Your task to perform on an android device: toggle improve location accuracy Image 0: 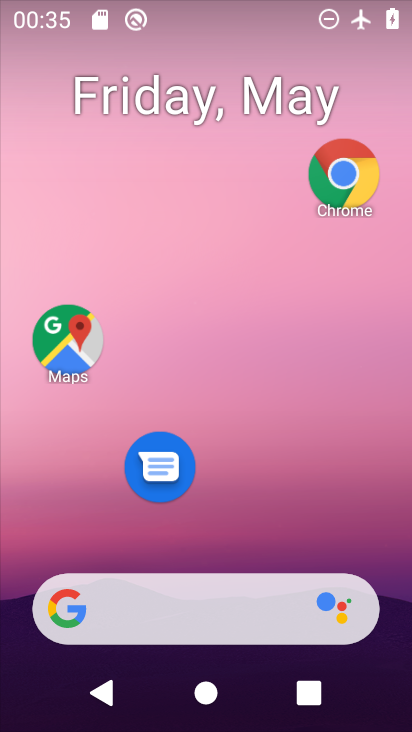
Step 0: drag from (285, 545) to (280, 223)
Your task to perform on an android device: toggle improve location accuracy Image 1: 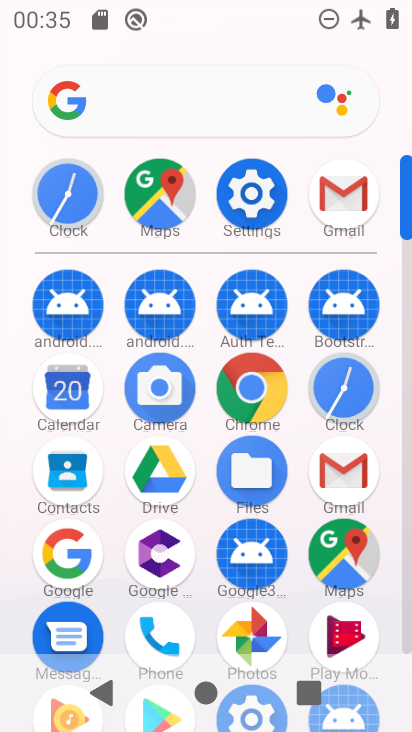
Step 1: click (245, 168)
Your task to perform on an android device: toggle improve location accuracy Image 2: 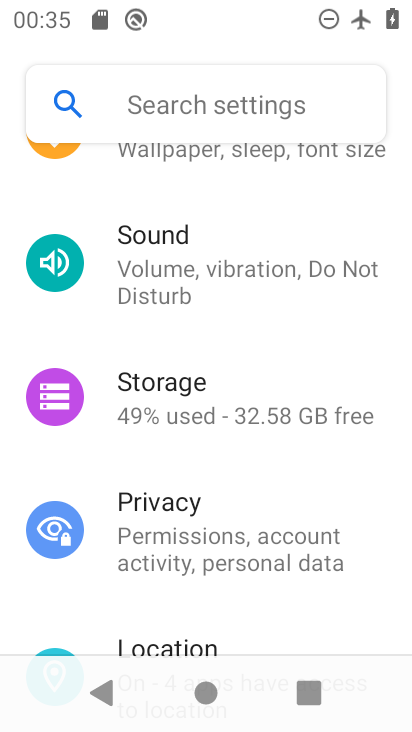
Step 2: drag from (225, 559) to (231, 278)
Your task to perform on an android device: toggle improve location accuracy Image 3: 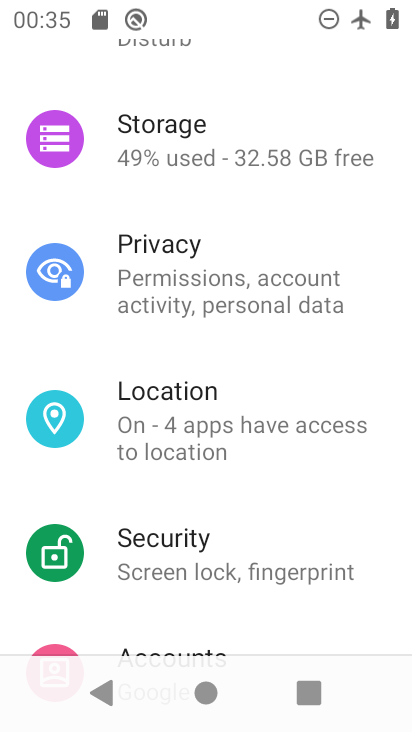
Step 3: click (218, 442)
Your task to perform on an android device: toggle improve location accuracy Image 4: 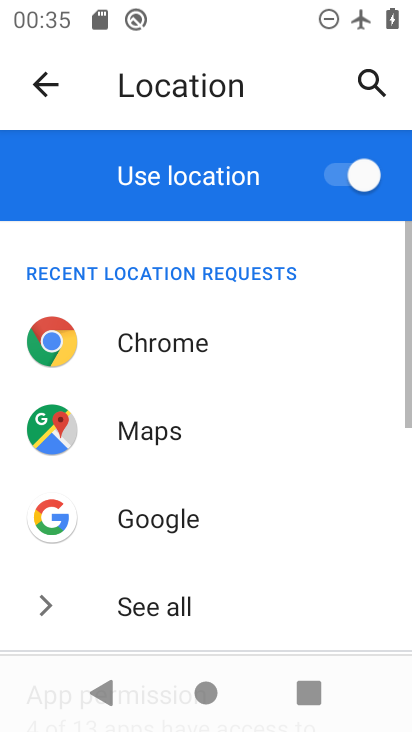
Step 4: drag from (174, 564) to (212, 268)
Your task to perform on an android device: toggle improve location accuracy Image 5: 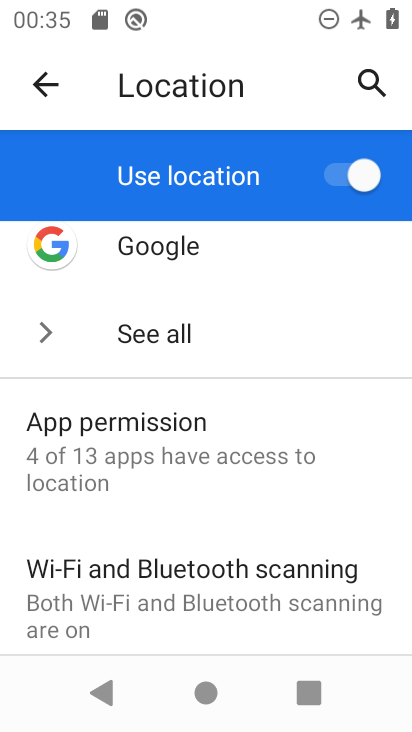
Step 5: drag from (194, 569) to (255, 248)
Your task to perform on an android device: toggle improve location accuracy Image 6: 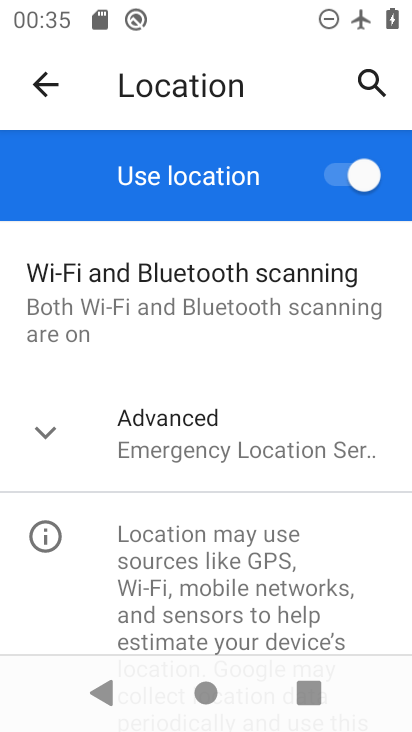
Step 6: click (209, 444)
Your task to perform on an android device: toggle improve location accuracy Image 7: 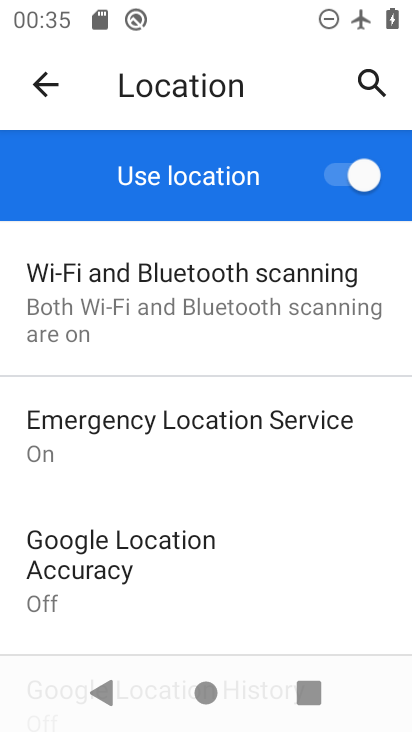
Step 7: drag from (159, 583) to (189, 405)
Your task to perform on an android device: toggle improve location accuracy Image 8: 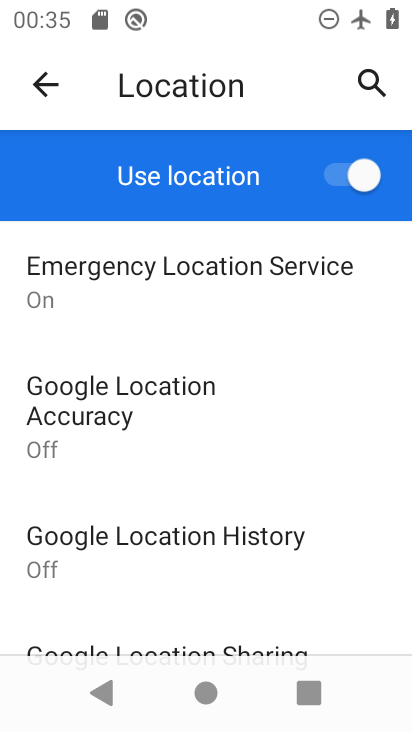
Step 8: click (154, 395)
Your task to perform on an android device: toggle improve location accuracy Image 9: 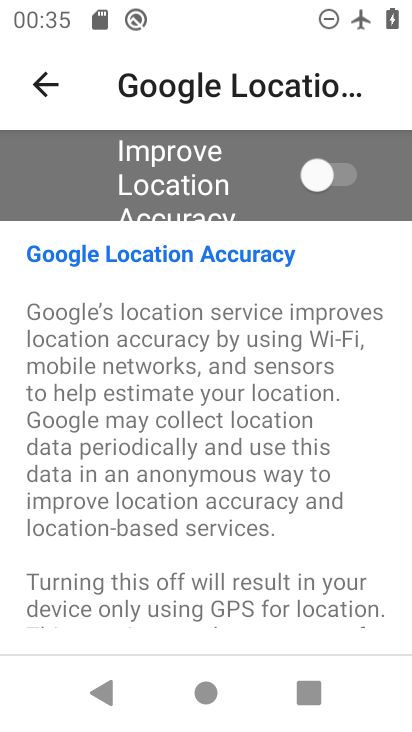
Step 9: click (341, 178)
Your task to perform on an android device: toggle improve location accuracy Image 10: 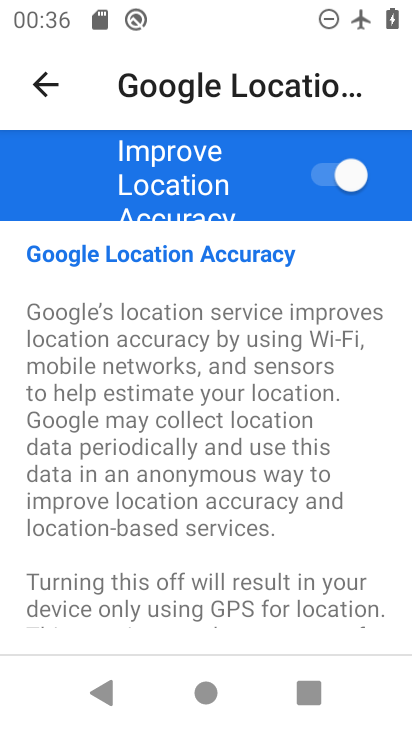
Step 10: task complete